Your task to perform on an android device: Go to Maps Image 0: 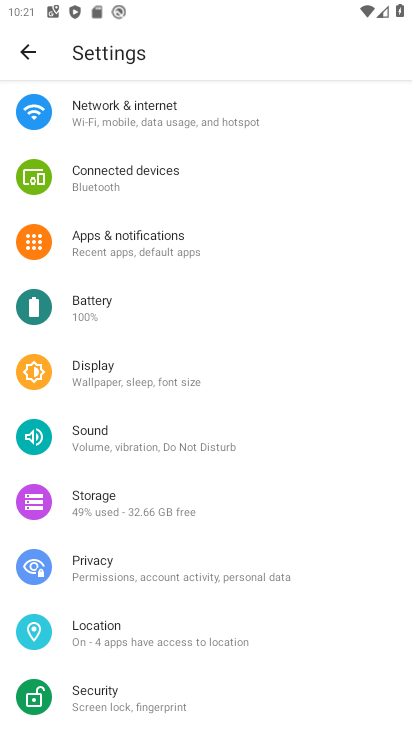
Step 0: press back button
Your task to perform on an android device: Go to Maps Image 1: 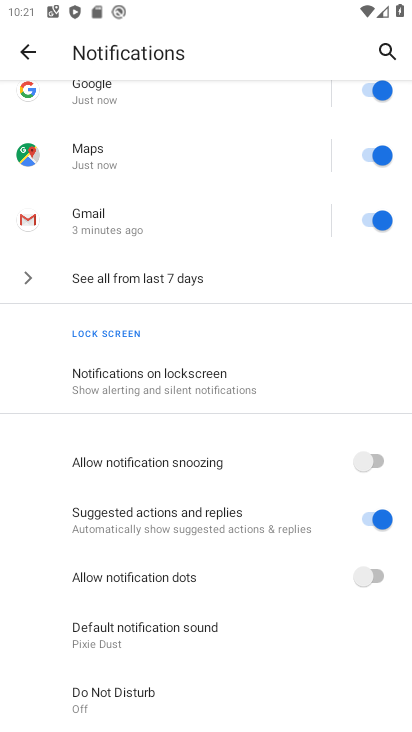
Step 1: press home button
Your task to perform on an android device: Go to Maps Image 2: 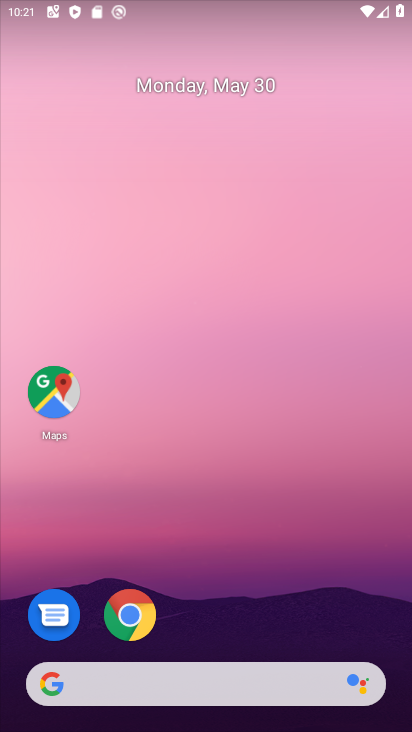
Step 2: drag from (285, 494) to (237, 1)
Your task to perform on an android device: Go to Maps Image 3: 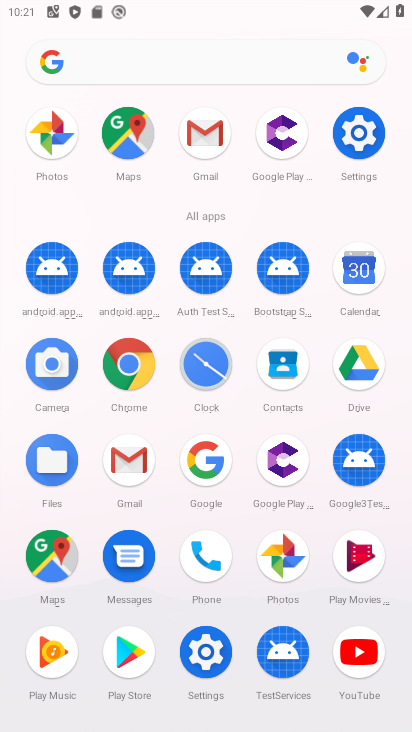
Step 3: click (124, 128)
Your task to perform on an android device: Go to Maps Image 4: 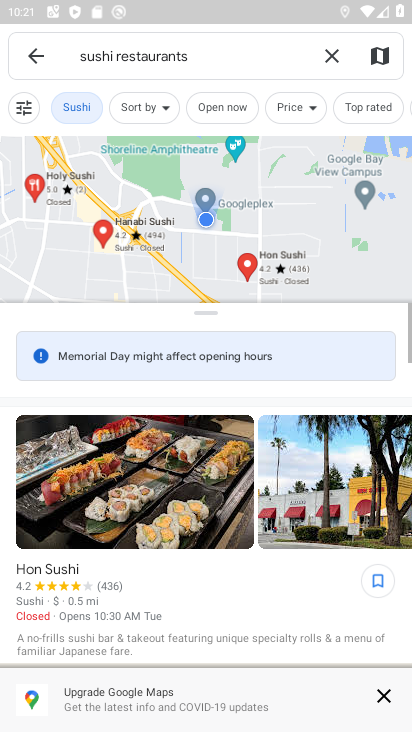
Step 4: click (328, 48)
Your task to perform on an android device: Go to Maps Image 5: 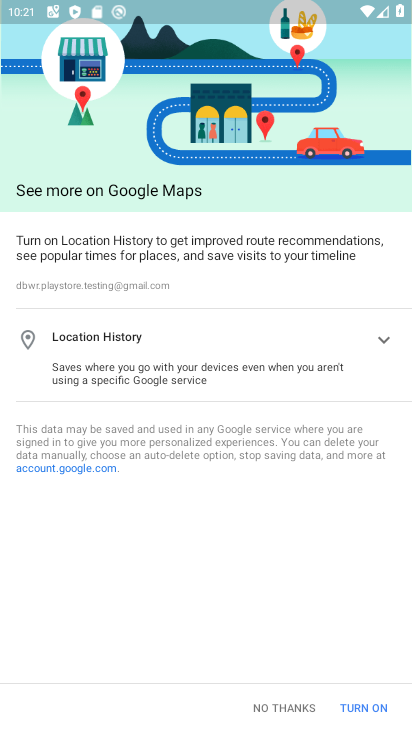
Step 5: click (361, 706)
Your task to perform on an android device: Go to Maps Image 6: 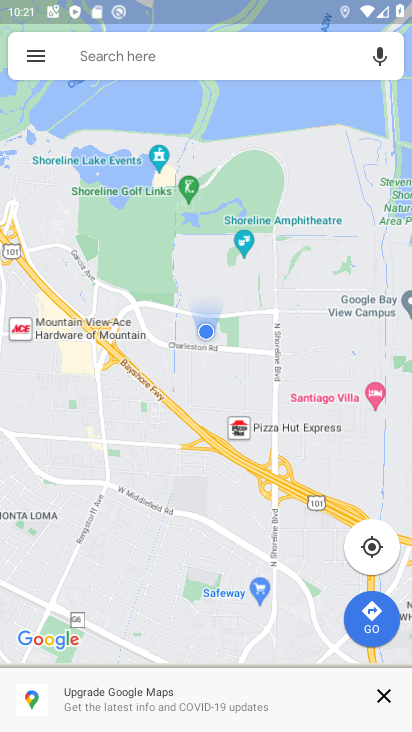
Step 6: task complete